Your task to perform on an android device: What's the weather going to be this weekend? Image 0: 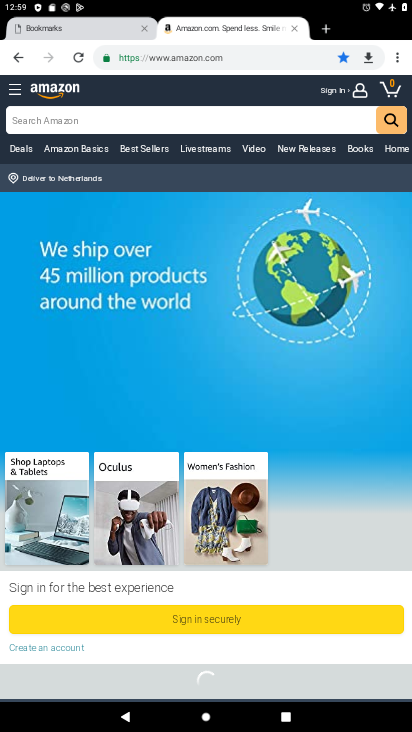
Step 0: click (320, 30)
Your task to perform on an android device: What's the weather going to be this weekend? Image 1: 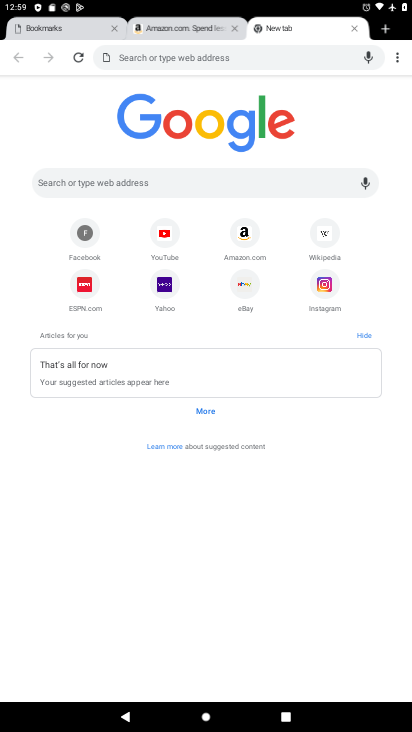
Step 1: click (116, 179)
Your task to perform on an android device: What's the weather going to be this weekend? Image 2: 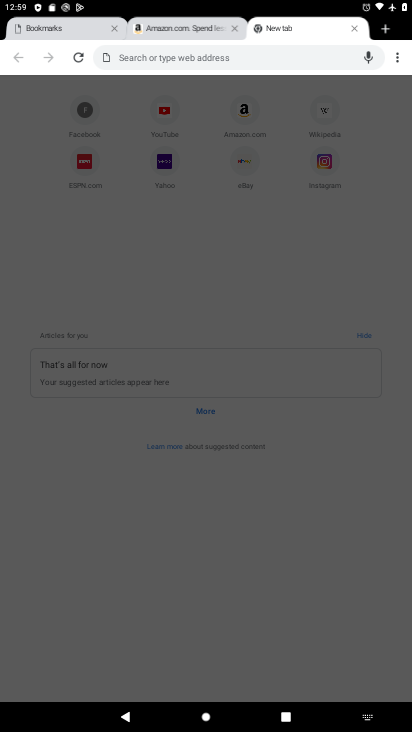
Step 2: type "weather"
Your task to perform on an android device: What's the weather going to be this weekend? Image 3: 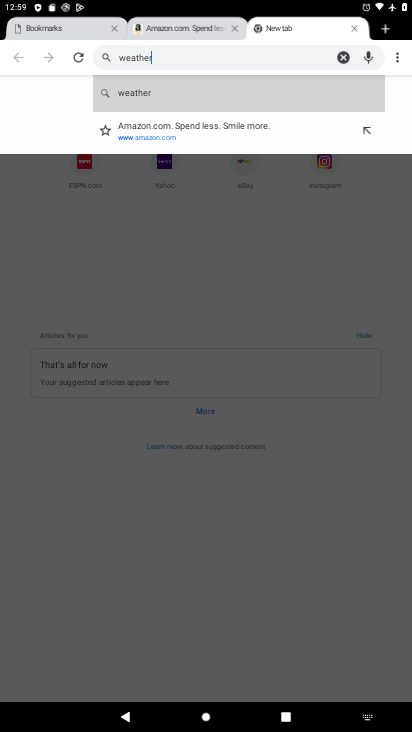
Step 3: type ""
Your task to perform on an android device: What's the weather going to be this weekend? Image 4: 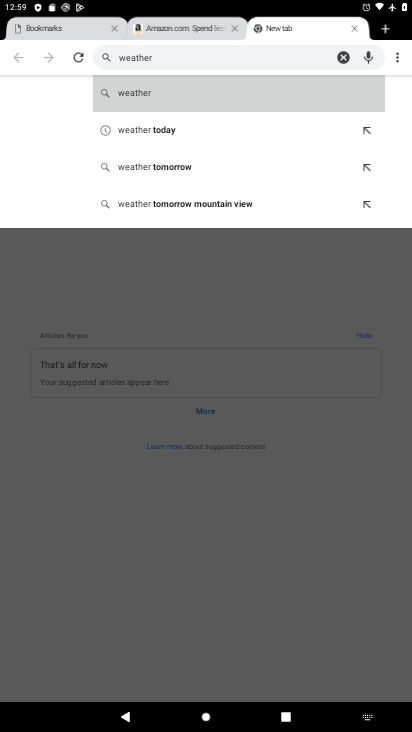
Step 4: click (232, 97)
Your task to perform on an android device: What's the weather going to be this weekend? Image 5: 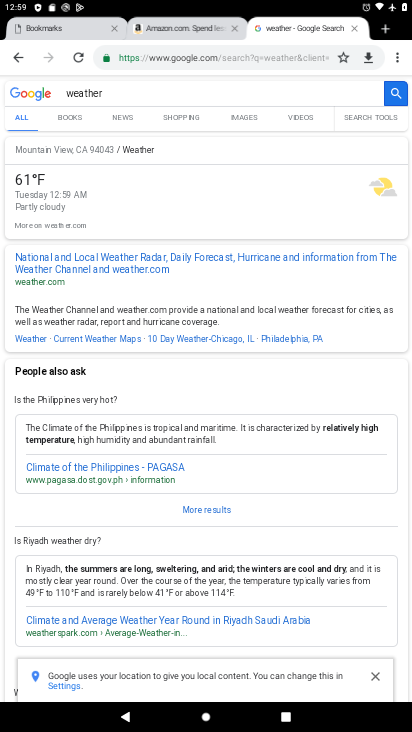
Step 5: task complete